Your task to perform on an android device: open the mobile data screen to see how much data has been used Image 0: 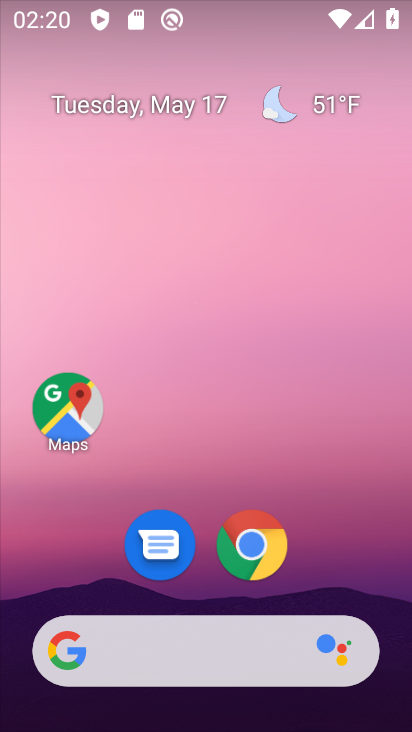
Step 0: drag from (205, 541) to (273, 79)
Your task to perform on an android device: open the mobile data screen to see how much data has been used Image 1: 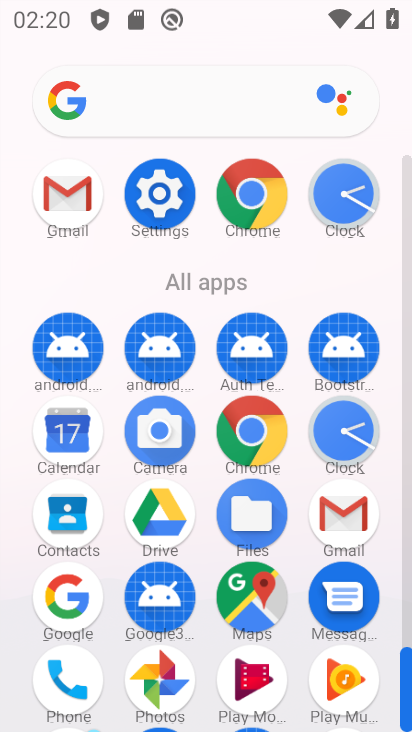
Step 1: click (162, 212)
Your task to perform on an android device: open the mobile data screen to see how much data has been used Image 2: 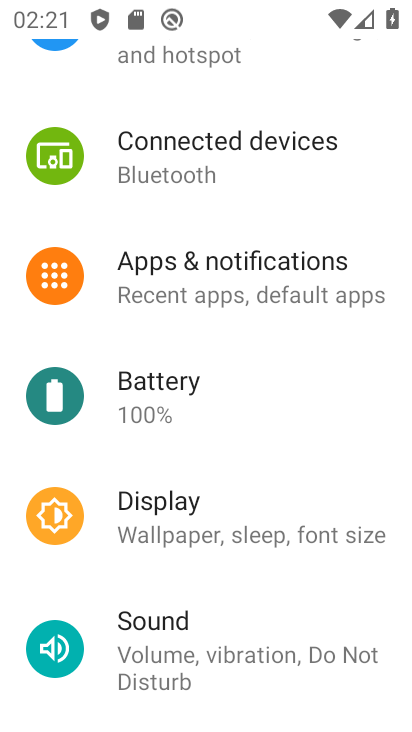
Step 2: drag from (219, 181) to (248, 520)
Your task to perform on an android device: open the mobile data screen to see how much data has been used Image 3: 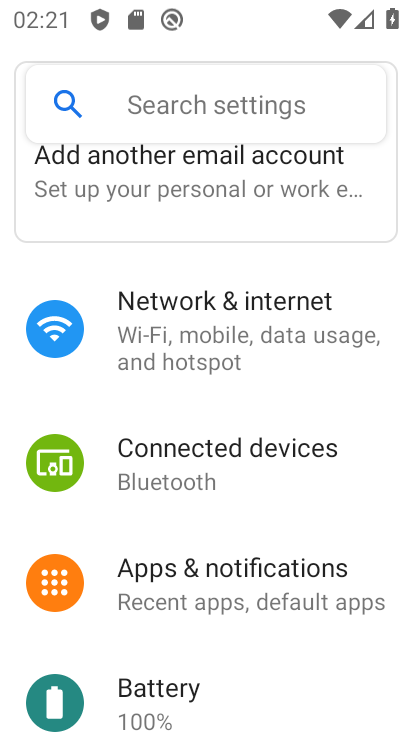
Step 3: click (240, 359)
Your task to perform on an android device: open the mobile data screen to see how much data has been used Image 4: 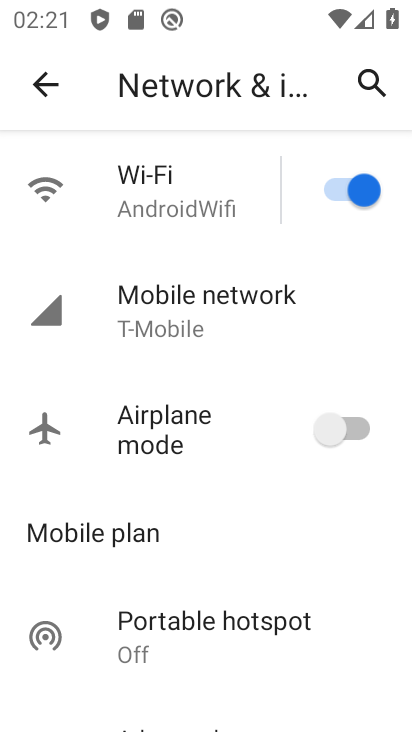
Step 4: click (236, 318)
Your task to perform on an android device: open the mobile data screen to see how much data has been used Image 5: 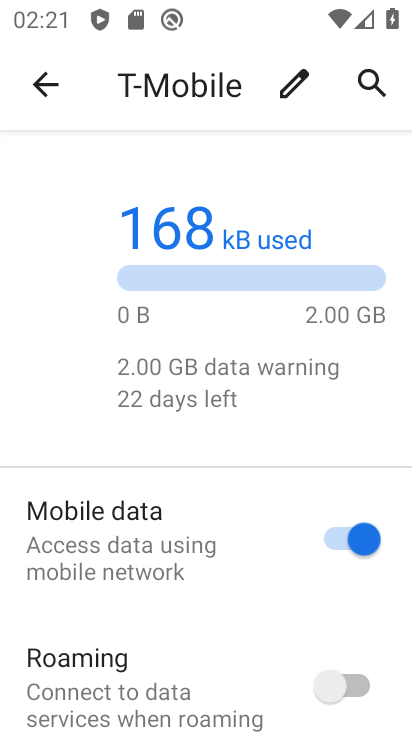
Step 5: task complete